Your task to perform on an android device: Check the news Image 0: 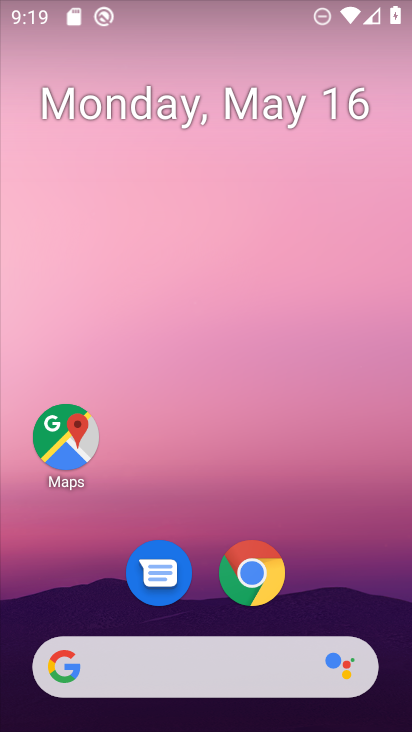
Step 0: click (247, 566)
Your task to perform on an android device: Check the news Image 1: 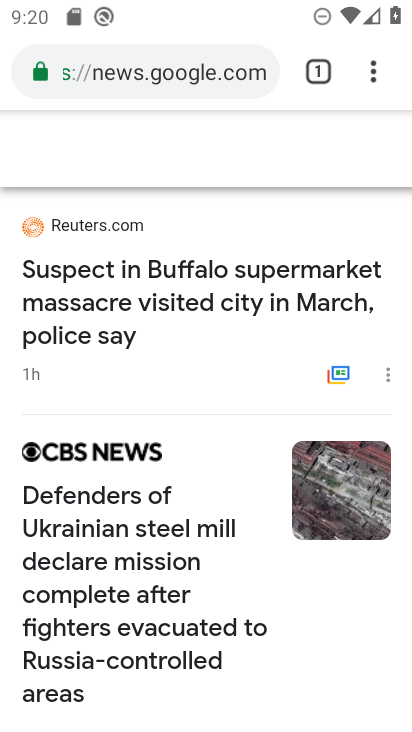
Step 1: task complete